Your task to perform on an android device: Open settings Image 0: 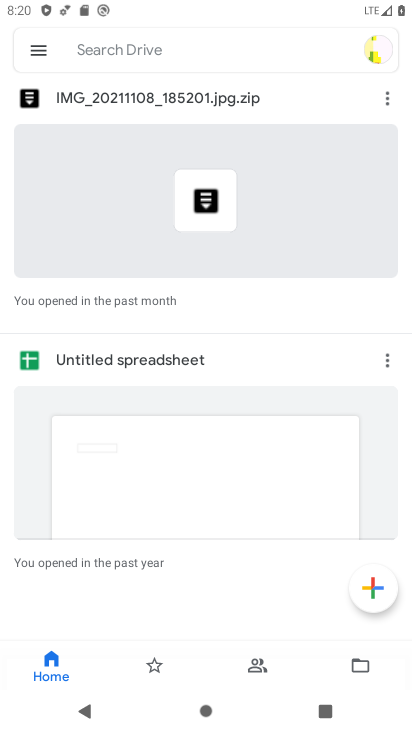
Step 0: press back button
Your task to perform on an android device: Open settings Image 1: 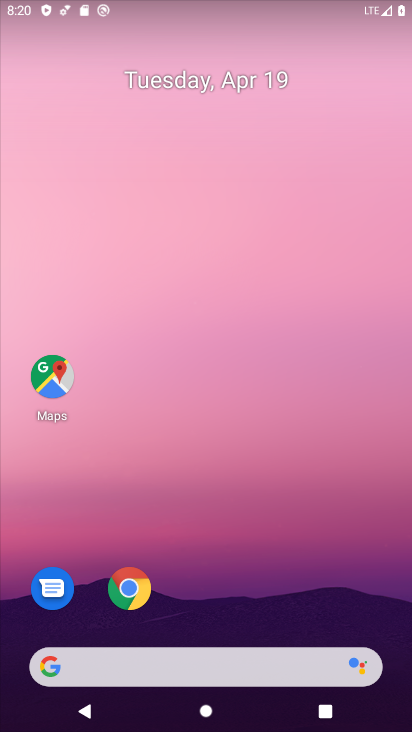
Step 1: drag from (264, 528) to (269, 57)
Your task to perform on an android device: Open settings Image 2: 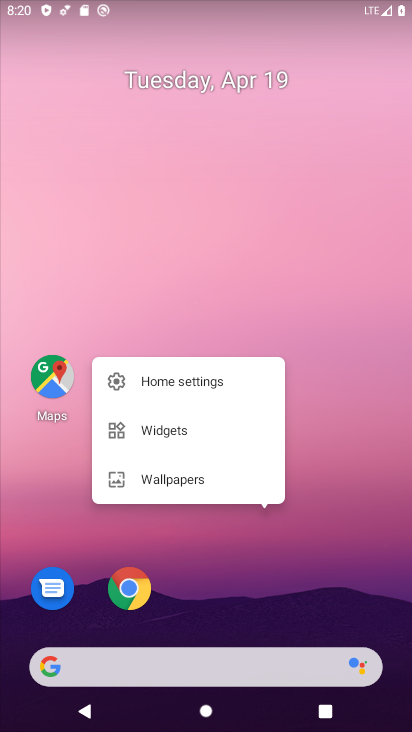
Step 2: click (349, 534)
Your task to perform on an android device: Open settings Image 3: 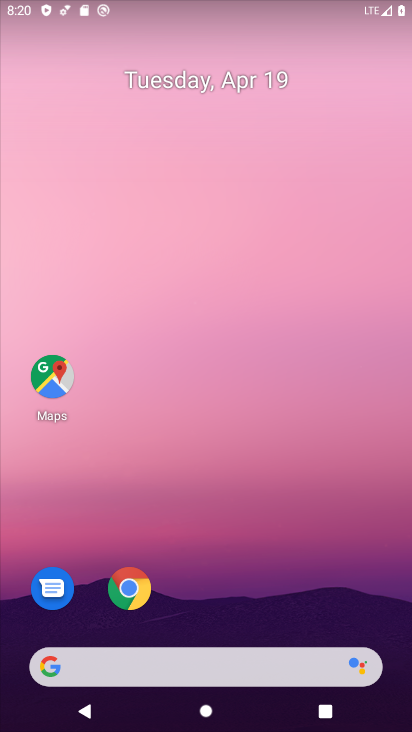
Step 3: drag from (308, 565) to (229, 65)
Your task to perform on an android device: Open settings Image 4: 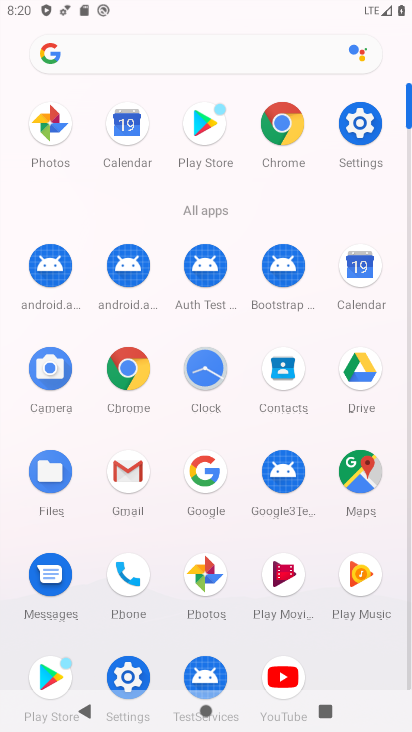
Step 4: click (115, 671)
Your task to perform on an android device: Open settings Image 5: 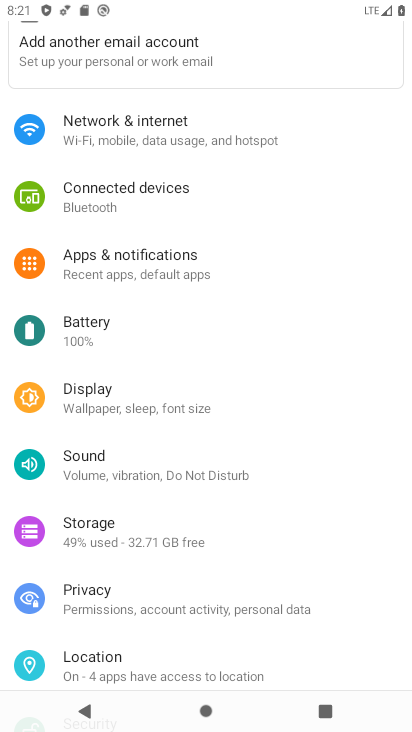
Step 5: task complete